Your task to perform on an android device: Open the map Image 0: 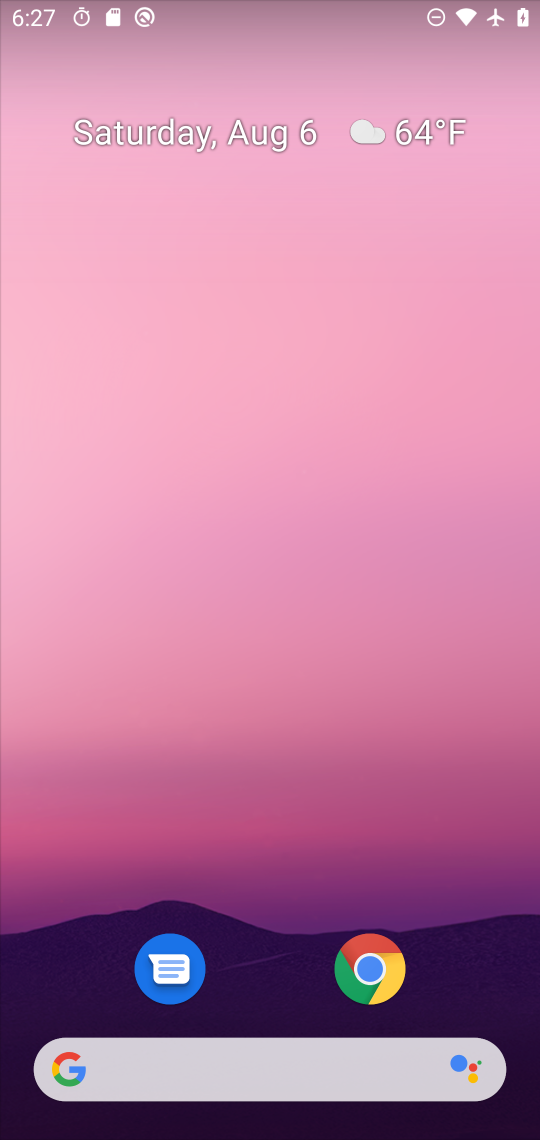
Step 0: drag from (270, 995) to (419, 276)
Your task to perform on an android device: Open the map Image 1: 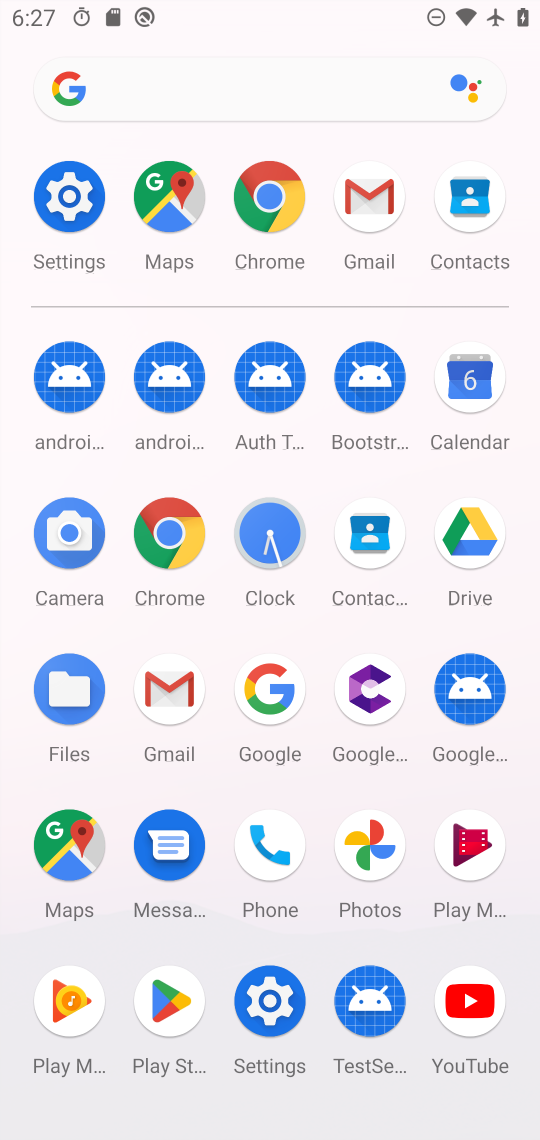
Step 1: click (163, 205)
Your task to perform on an android device: Open the map Image 2: 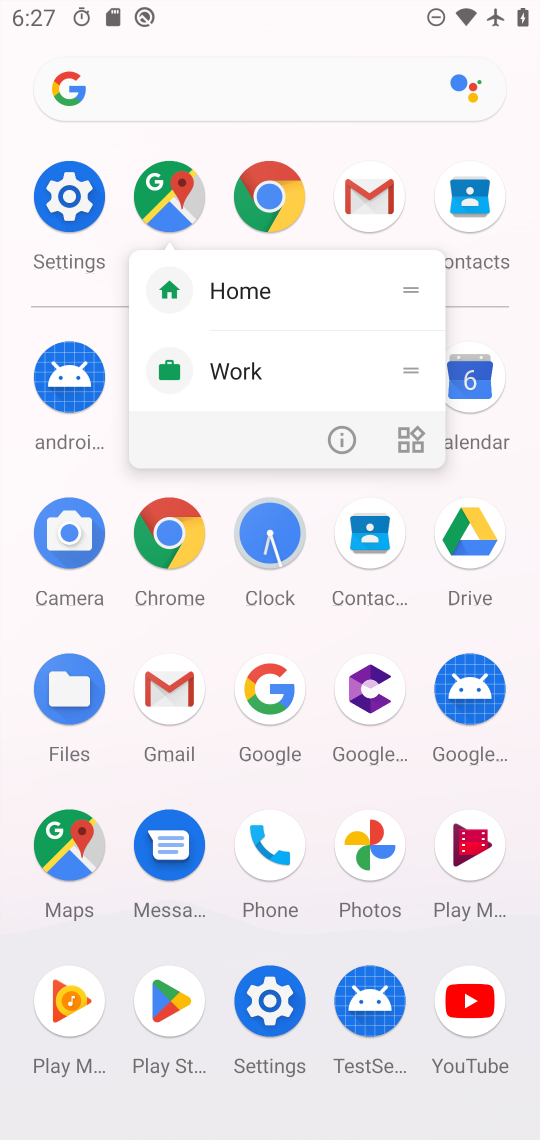
Step 2: click (163, 205)
Your task to perform on an android device: Open the map Image 3: 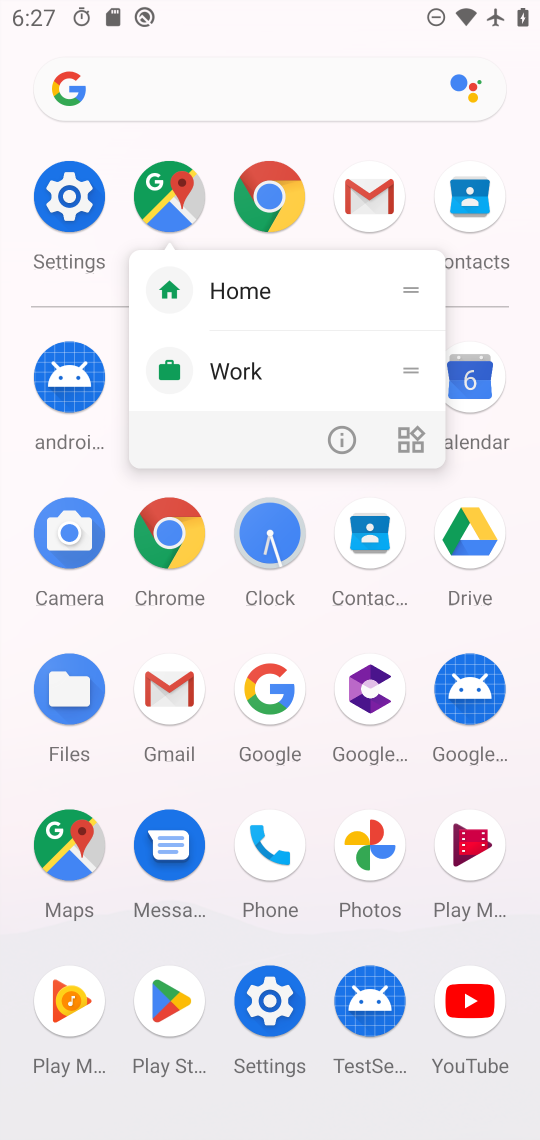
Step 3: click (163, 205)
Your task to perform on an android device: Open the map Image 4: 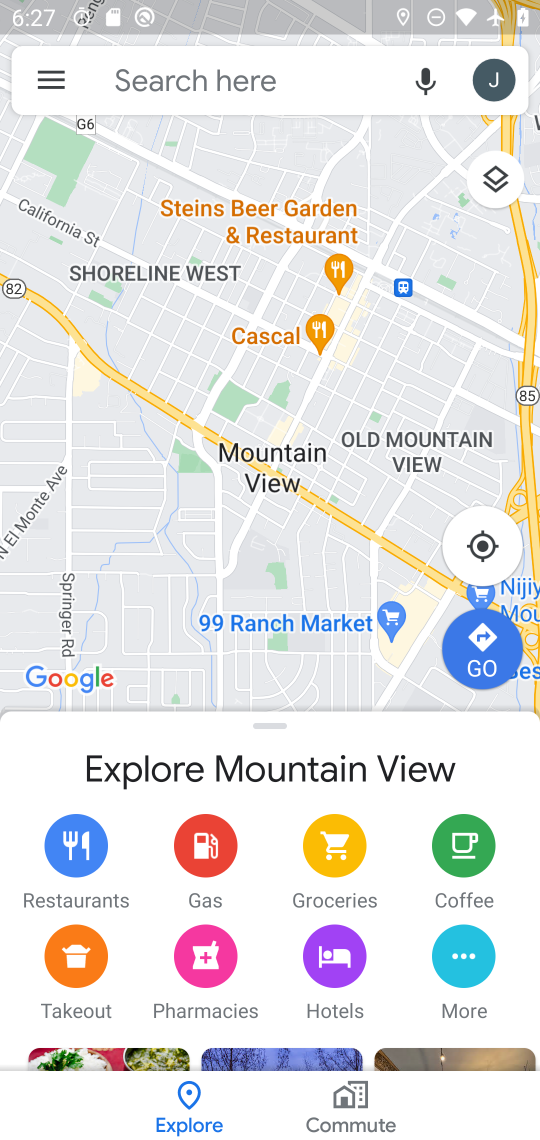
Step 4: task complete